Your task to perform on an android device: Go to internet settings Image 0: 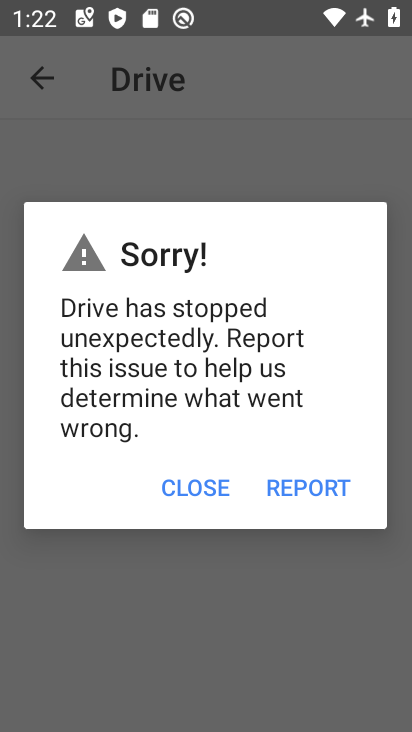
Step 0: press home button
Your task to perform on an android device: Go to internet settings Image 1: 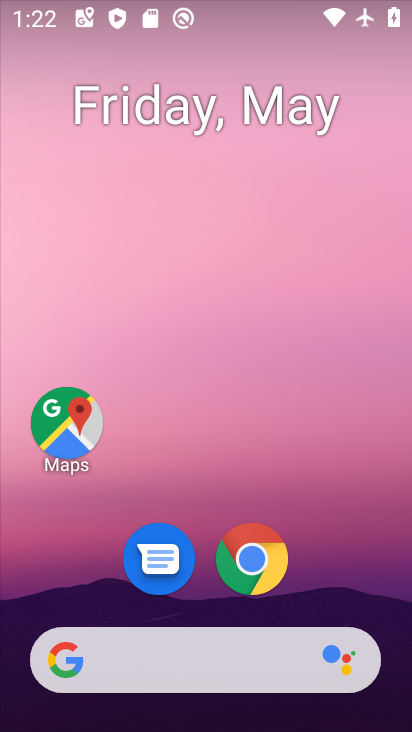
Step 1: drag from (335, 372) to (289, 55)
Your task to perform on an android device: Go to internet settings Image 2: 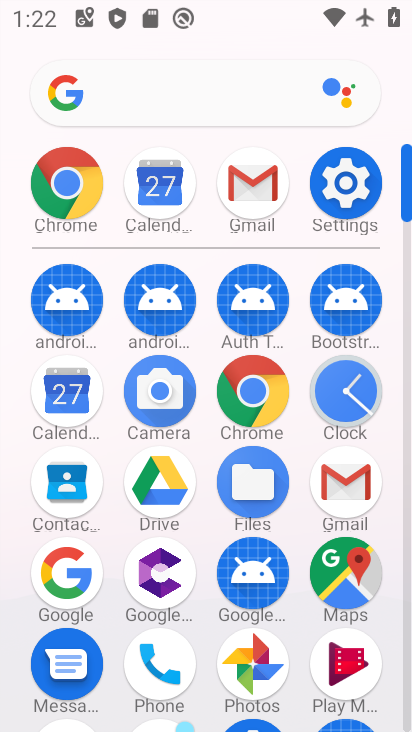
Step 2: click (346, 180)
Your task to perform on an android device: Go to internet settings Image 3: 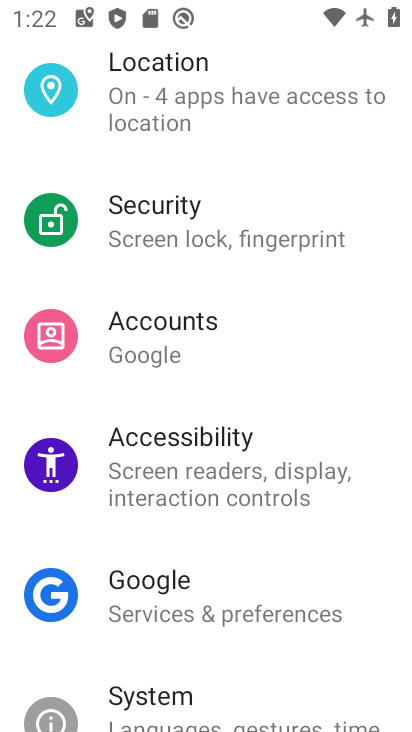
Step 3: drag from (250, 131) to (342, 687)
Your task to perform on an android device: Go to internet settings Image 4: 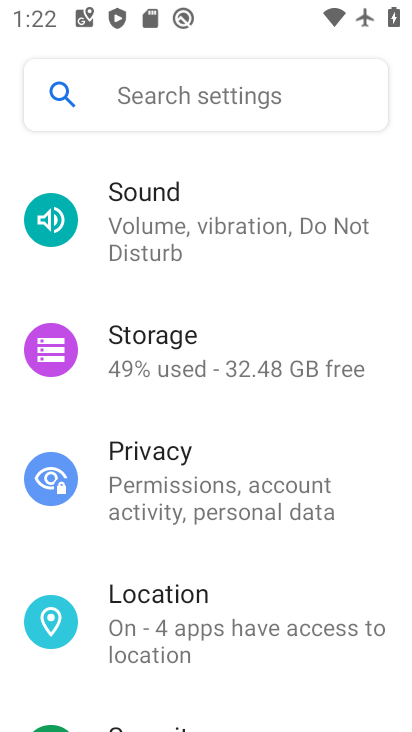
Step 4: drag from (299, 140) to (322, 634)
Your task to perform on an android device: Go to internet settings Image 5: 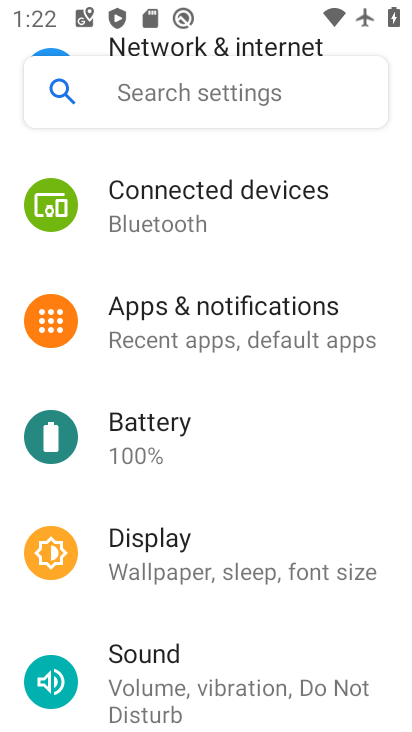
Step 5: drag from (225, 158) to (250, 543)
Your task to perform on an android device: Go to internet settings Image 6: 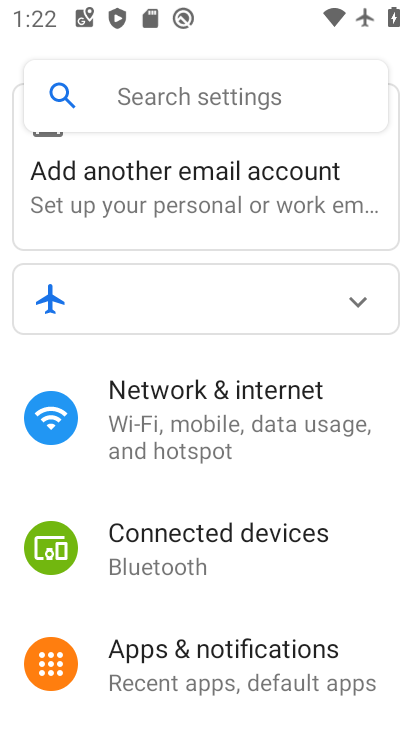
Step 6: click (230, 435)
Your task to perform on an android device: Go to internet settings Image 7: 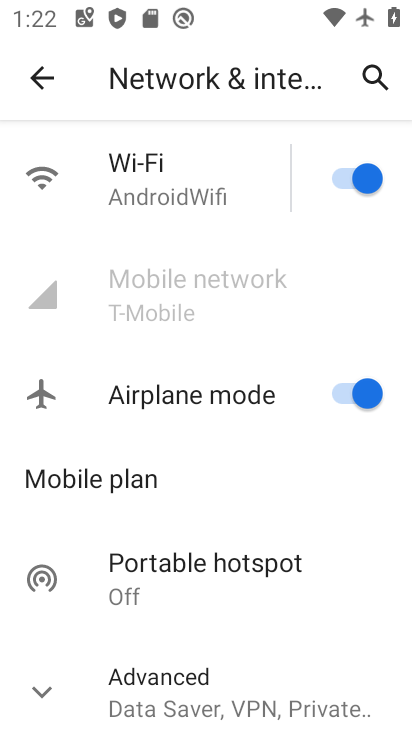
Step 7: drag from (235, 433) to (325, 0)
Your task to perform on an android device: Go to internet settings Image 8: 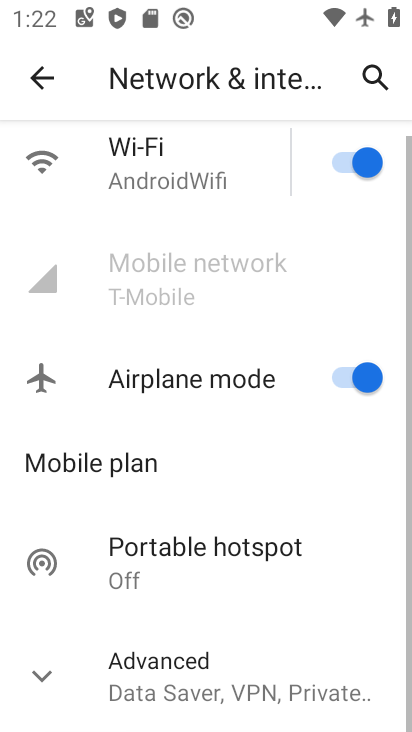
Step 8: click (197, 661)
Your task to perform on an android device: Go to internet settings Image 9: 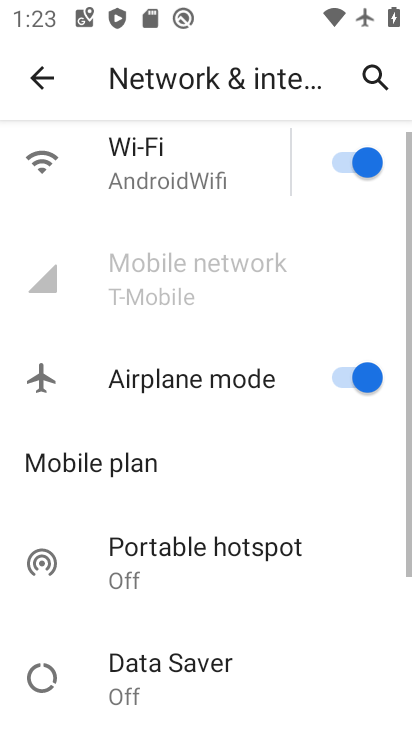
Step 9: task complete